Your task to perform on an android device: turn off notifications settings in the gmail app Image 0: 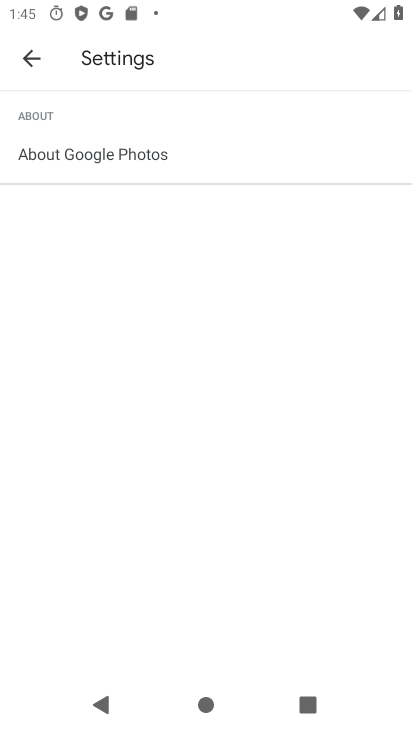
Step 0: press home button
Your task to perform on an android device: turn off notifications settings in the gmail app Image 1: 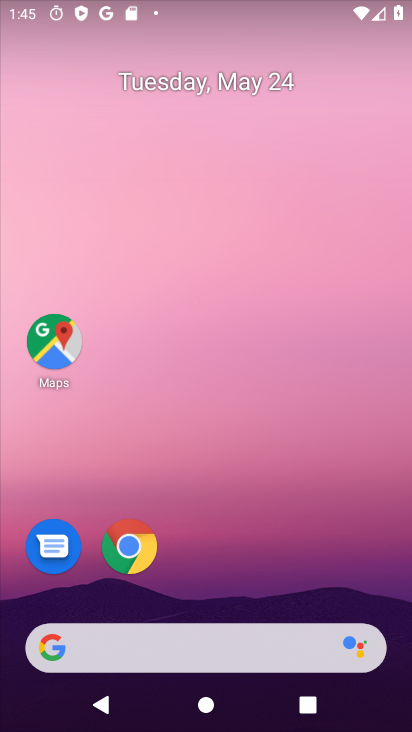
Step 1: click (213, 120)
Your task to perform on an android device: turn off notifications settings in the gmail app Image 2: 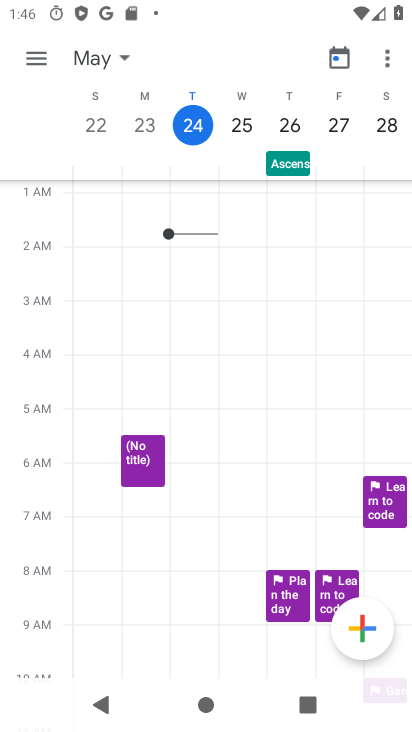
Step 2: press home button
Your task to perform on an android device: turn off notifications settings in the gmail app Image 3: 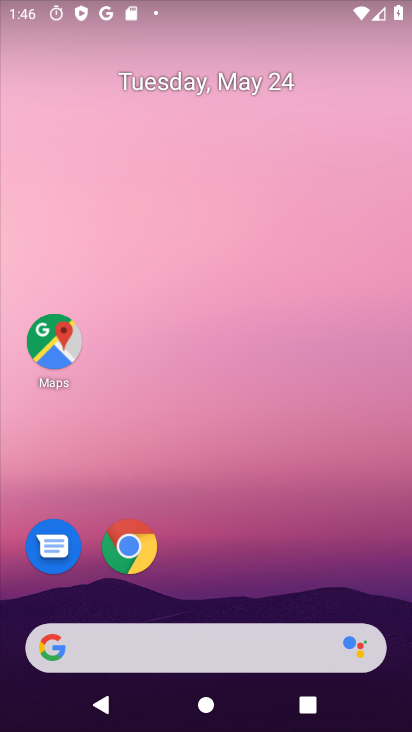
Step 3: drag from (167, 634) to (138, 139)
Your task to perform on an android device: turn off notifications settings in the gmail app Image 4: 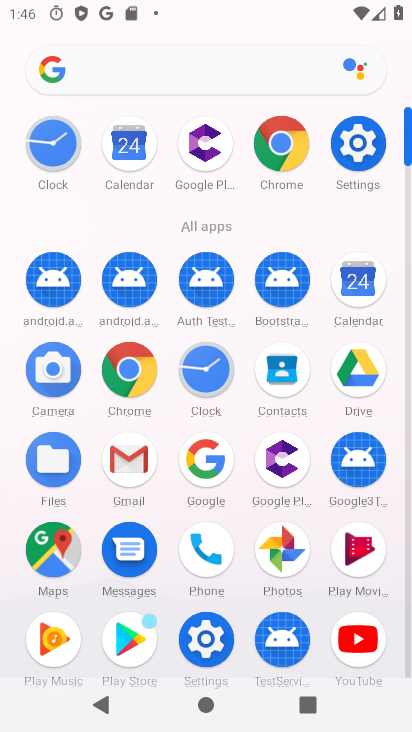
Step 4: click (138, 456)
Your task to perform on an android device: turn off notifications settings in the gmail app Image 5: 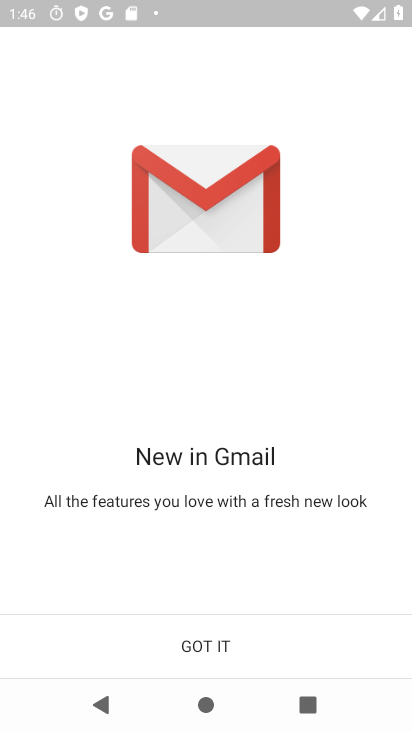
Step 5: click (183, 644)
Your task to perform on an android device: turn off notifications settings in the gmail app Image 6: 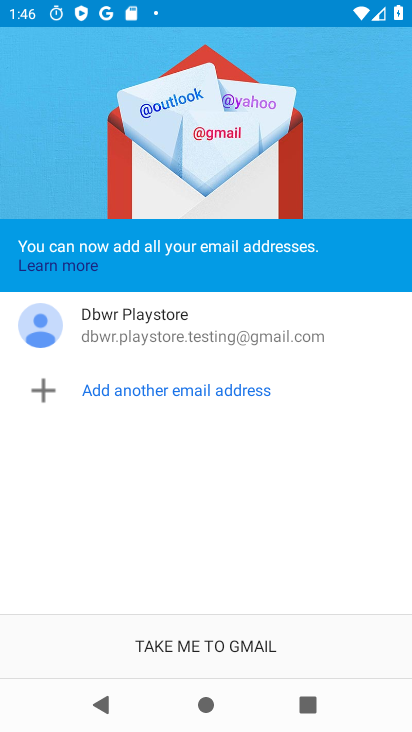
Step 6: click (221, 635)
Your task to perform on an android device: turn off notifications settings in the gmail app Image 7: 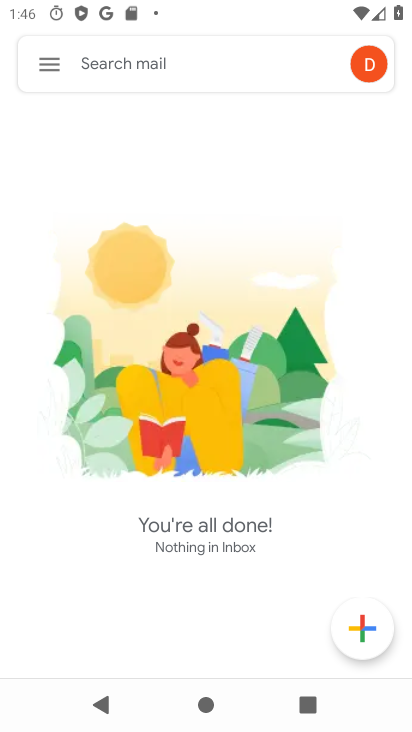
Step 7: click (47, 87)
Your task to perform on an android device: turn off notifications settings in the gmail app Image 8: 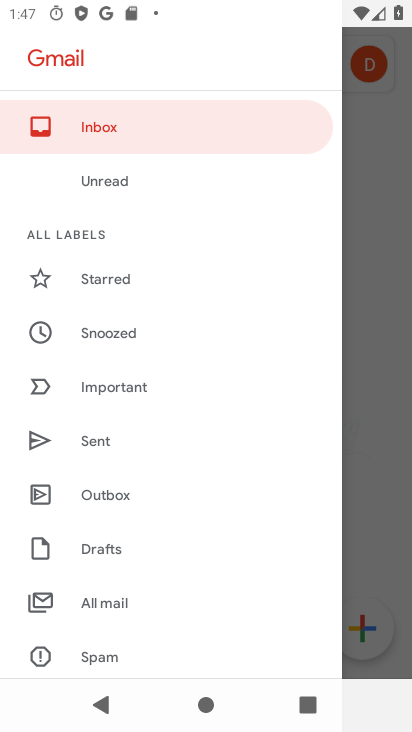
Step 8: drag from (143, 585) to (99, 30)
Your task to perform on an android device: turn off notifications settings in the gmail app Image 9: 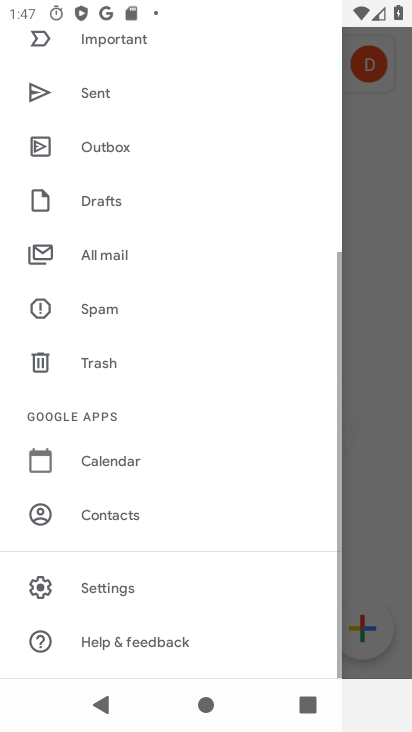
Step 9: drag from (140, 549) to (128, 63)
Your task to perform on an android device: turn off notifications settings in the gmail app Image 10: 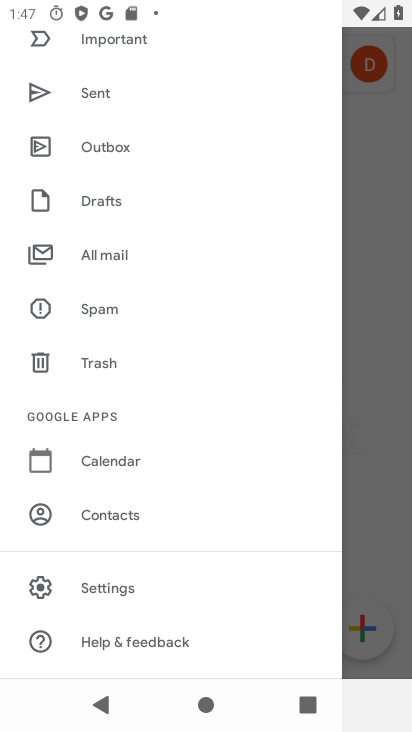
Step 10: click (103, 588)
Your task to perform on an android device: turn off notifications settings in the gmail app Image 11: 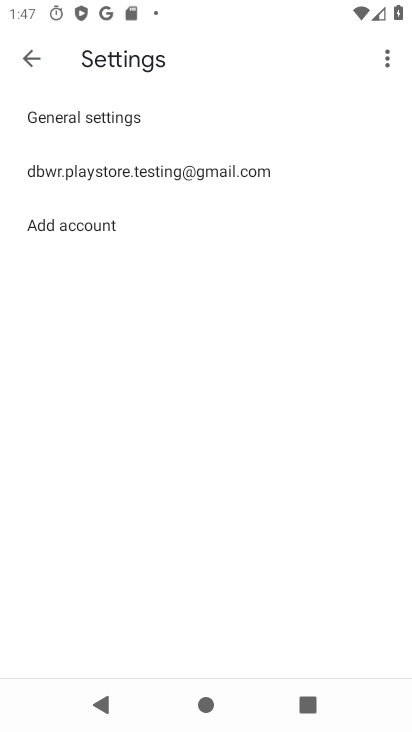
Step 11: click (122, 176)
Your task to perform on an android device: turn off notifications settings in the gmail app Image 12: 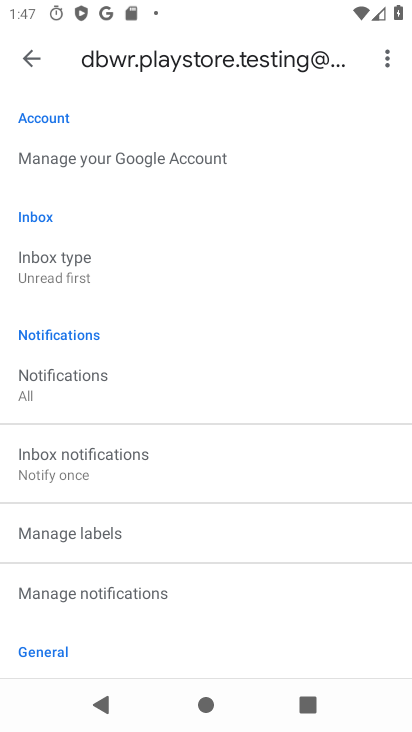
Step 12: drag from (188, 360) to (179, 242)
Your task to perform on an android device: turn off notifications settings in the gmail app Image 13: 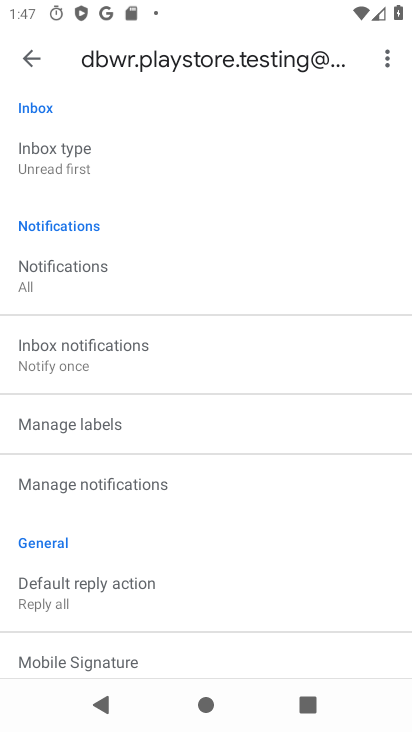
Step 13: click (116, 540)
Your task to perform on an android device: turn off notifications settings in the gmail app Image 14: 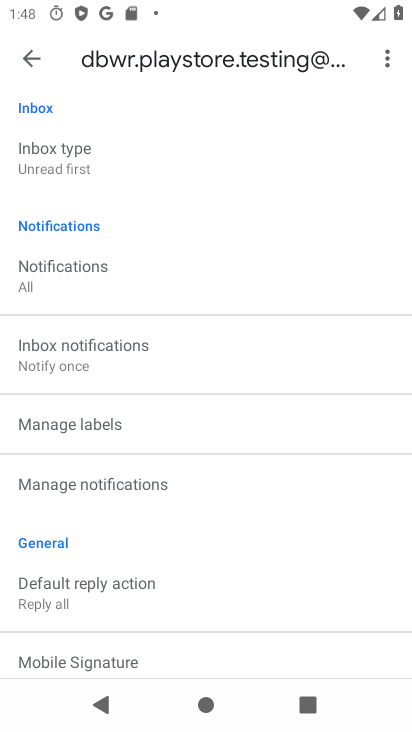
Step 14: click (140, 487)
Your task to perform on an android device: turn off notifications settings in the gmail app Image 15: 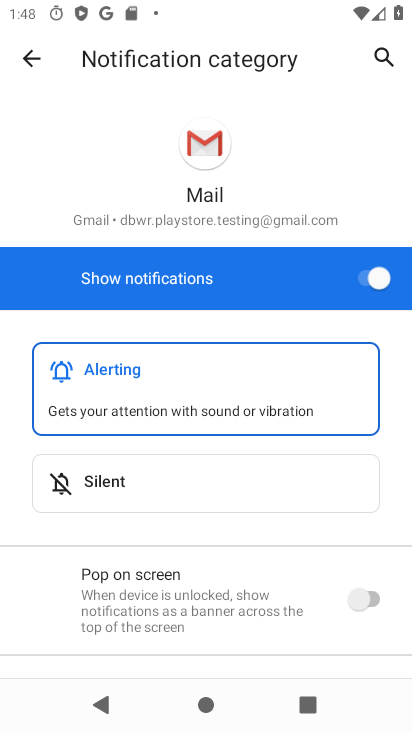
Step 15: click (371, 283)
Your task to perform on an android device: turn off notifications settings in the gmail app Image 16: 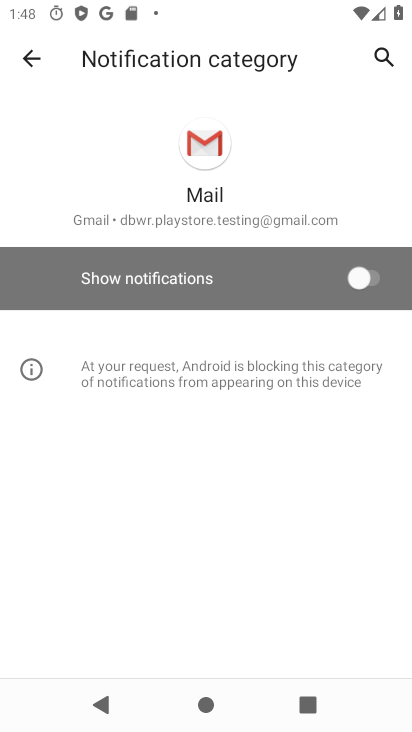
Step 16: task complete